Your task to perform on an android device: turn on sleep mode Image 0: 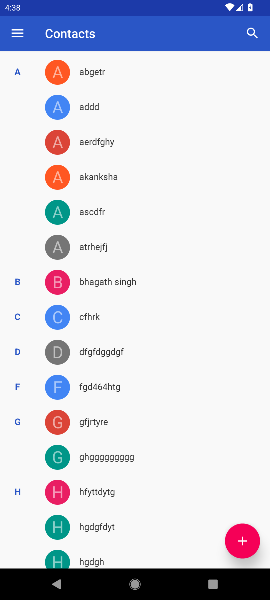
Step 0: press home button
Your task to perform on an android device: turn on sleep mode Image 1: 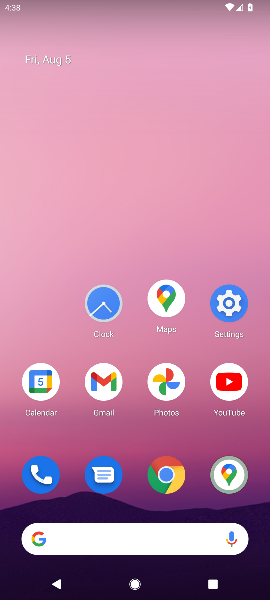
Step 1: click (223, 300)
Your task to perform on an android device: turn on sleep mode Image 2: 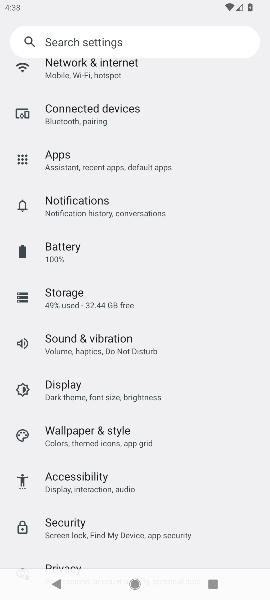
Step 2: click (49, 377)
Your task to perform on an android device: turn on sleep mode Image 3: 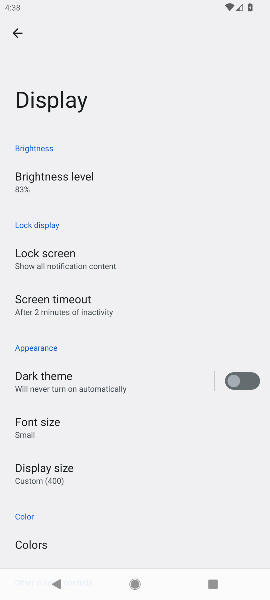
Step 3: click (54, 295)
Your task to perform on an android device: turn on sleep mode Image 4: 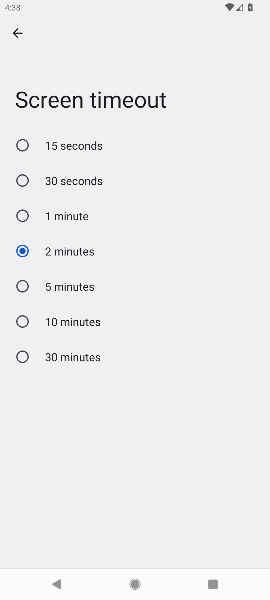
Step 4: task complete